Your task to perform on an android device: turn on airplane mode Image 0: 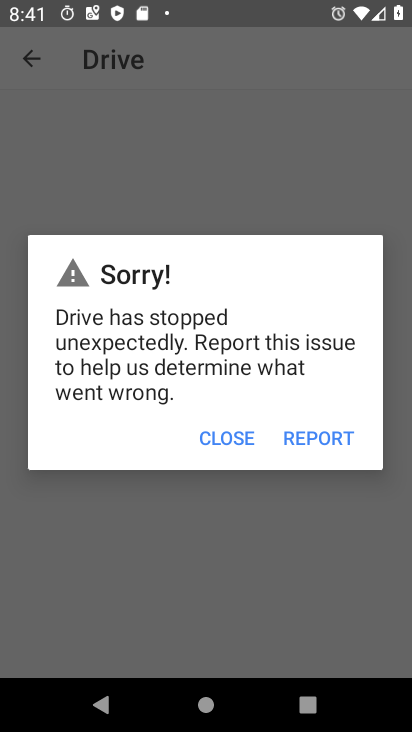
Step 0: press home button
Your task to perform on an android device: turn on airplane mode Image 1: 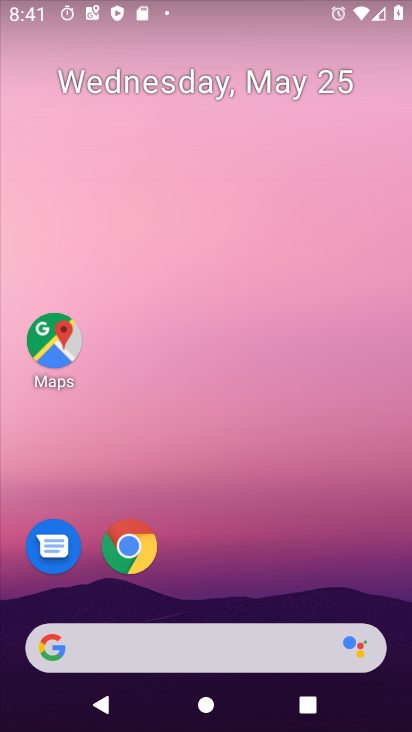
Step 1: drag from (168, 601) to (228, 3)
Your task to perform on an android device: turn on airplane mode Image 2: 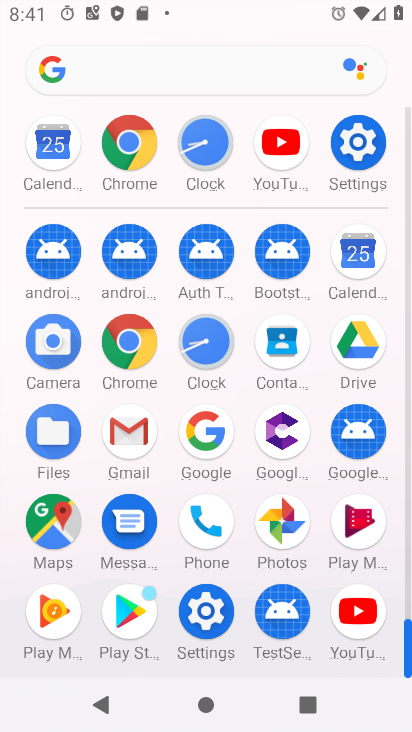
Step 2: click (362, 153)
Your task to perform on an android device: turn on airplane mode Image 3: 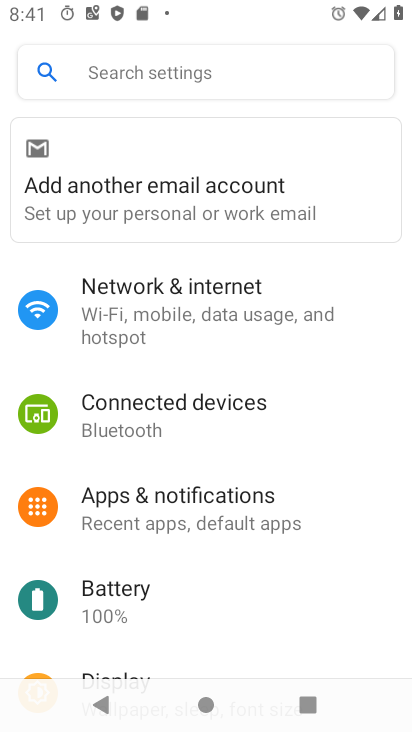
Step 3: click (172, 326)
Your task to perform on an android device: turn on airplane mode Image 4: 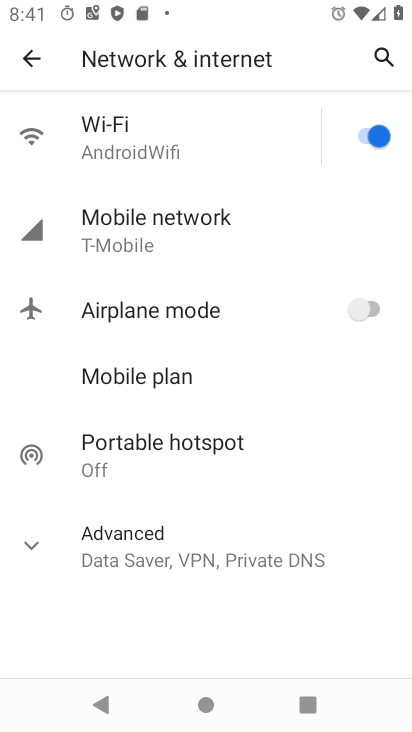
Step 4: click (375, 302)
Your task to perform on an android device: turn on airplane mode Image 5: 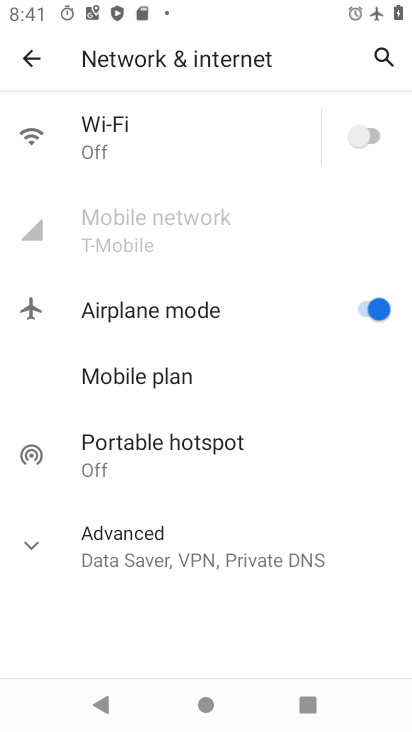
Step 5: task complete